Your task to perform on an android device: change the clock display to analog Image 0: 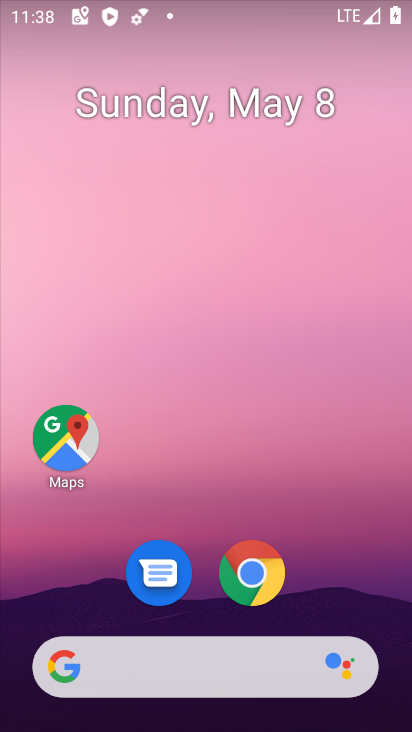
Step 0: drag from (332, 583) to (278, 2)
Your task to perform on an android device: change the clock display to analog Image 1: 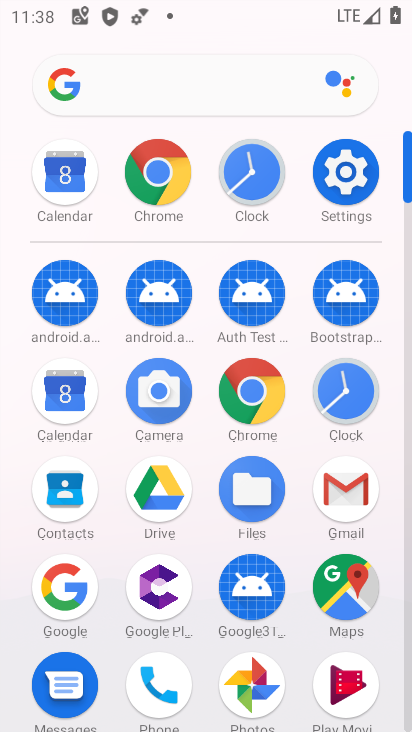
Step 1: drag from (5, 574) to (7, 256)
Your task to perform on an android device: change the clock display to analog Image 2: 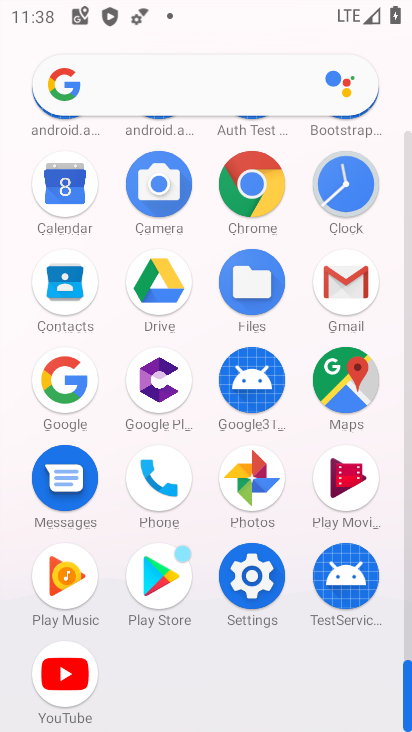
Step 2: click (346, 178)
Your task to perform on an android device: change the clock display to analog Image 3: 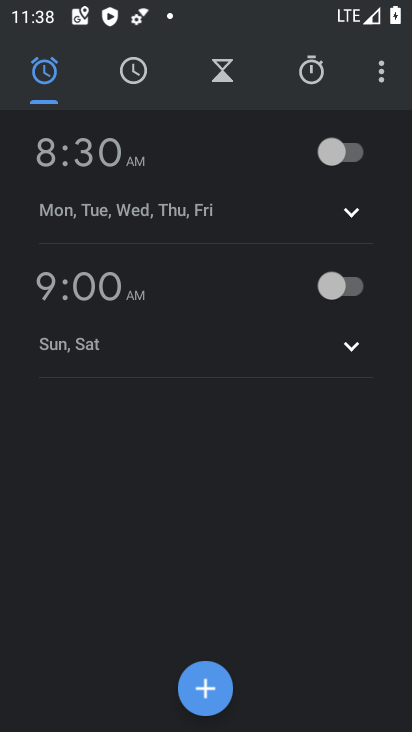
Step 3: task complete